Your task to perform on an android device: turn off sleep mode Image 0: 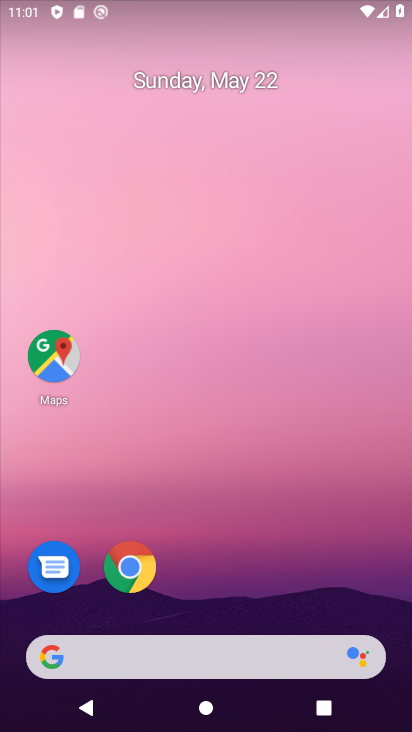
Step 0: drag from (145, 599) to (158, 69)
Your task to perform on an android device: turn off sleep mode Image 1: 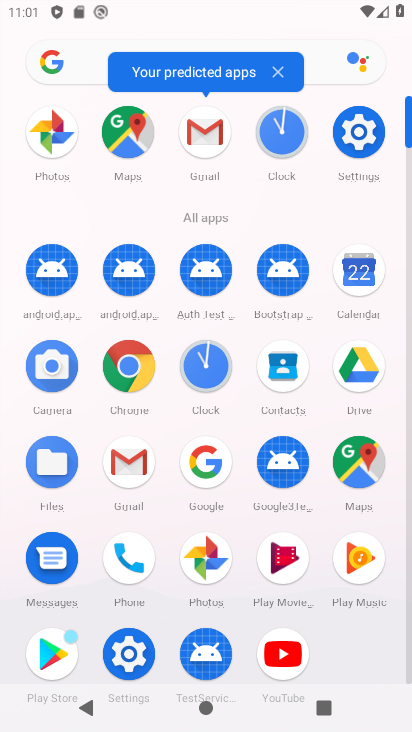
Step 1: click (360, 150)
Your task to perform on an android device: turn off sleep mode Image 2: 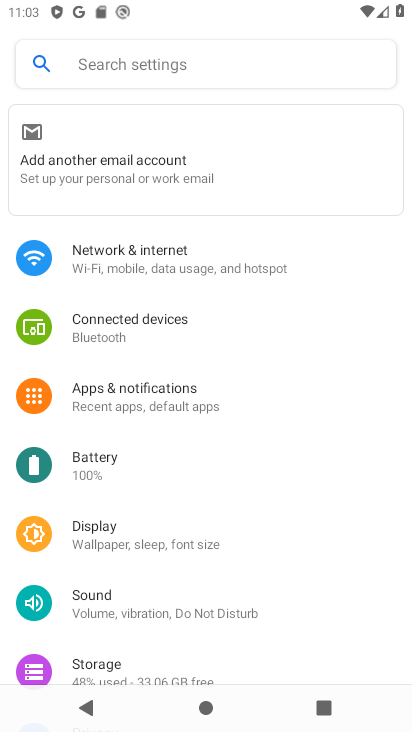
Step 2: task complete